Your task to perform on an android device: Go to calendar. Show me events next week Image 0: 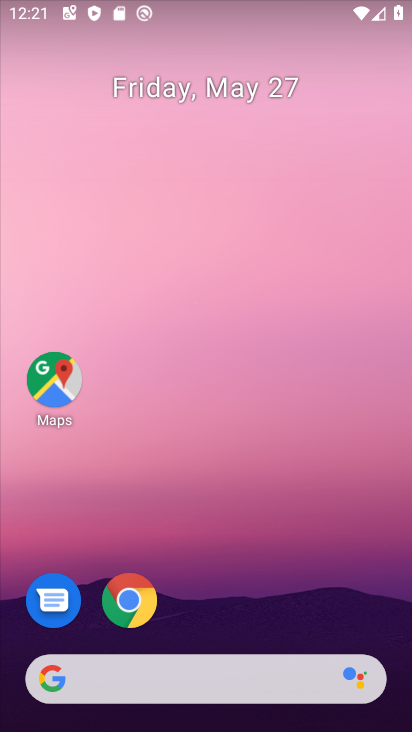
Step 0: drag from (304, 537) to (184, 19)
Your task to perform on an android device: Go to calendar. Show me events next week Image 1: 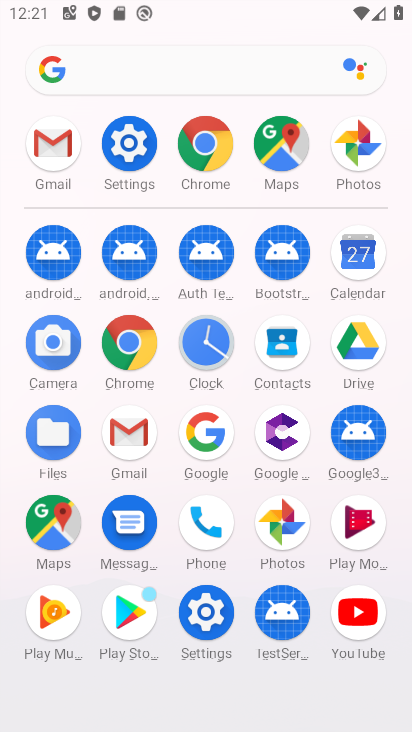
Step 1: drag from (14, 513) to (7, 210)
Your task to perform on an android device: Go to calendar. Show me events next week Image 2: 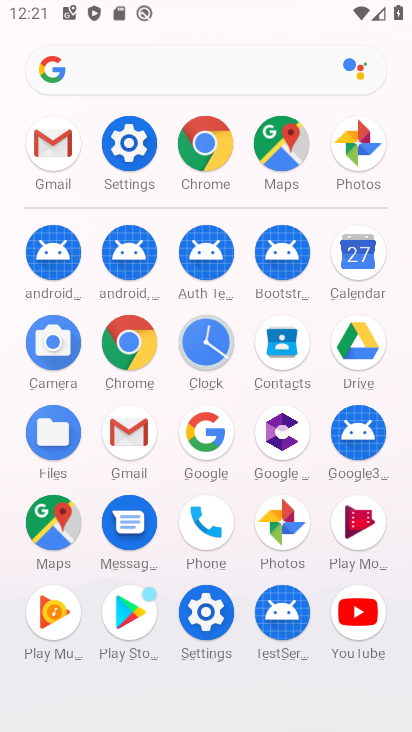
Step 2: click (356, 250)
Your task to perform on an android device: Go to calendar. Show me events next week Image 3: 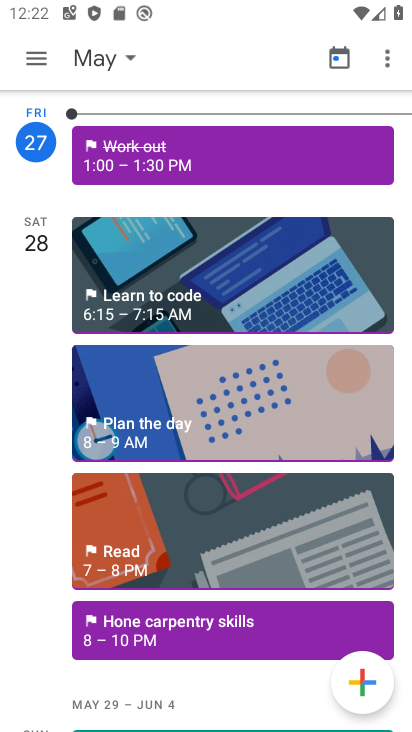
Step 3: click (102, 63)
Your task to perform on an android device: Go to calendar. Show me events next week Image 4: 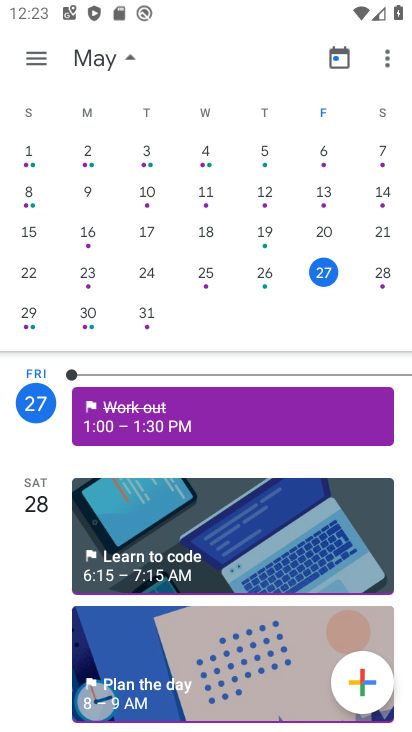
Step 4: click (44, 52)
Your task to perform on an android device: Go to calendar. Show me events next week Image 5: 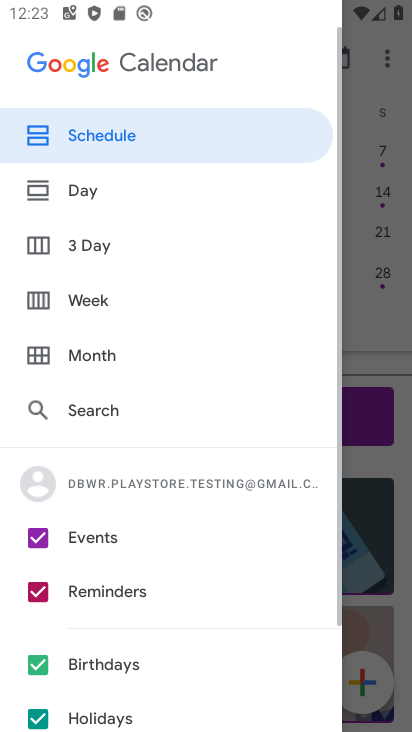
Step 5: click (102, 298)
Your task to perform on an android device: Go to calendar. Show me events next week Image 6: 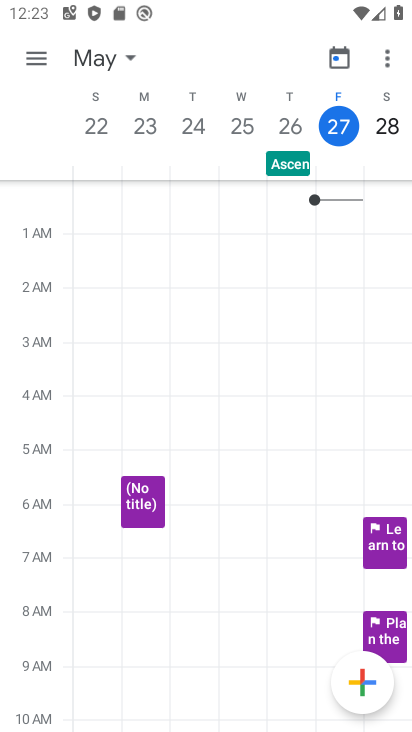
Step 6: click (0, 98)
Your task to perform on an android device: Go to calendar. Show me events next week Image 7: 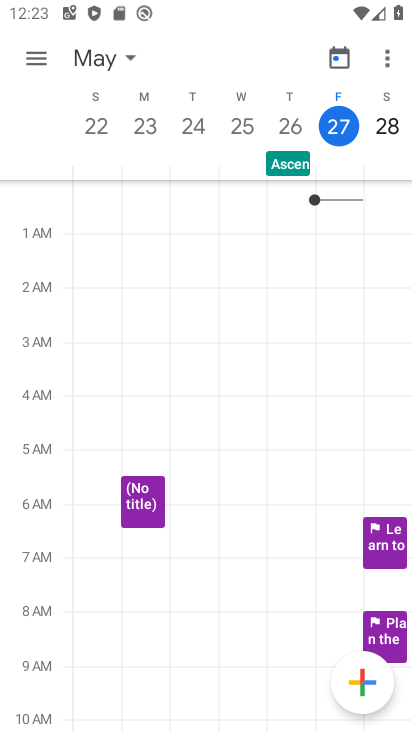
Step 7: task complete